Your task to perform on an android device: turn on javascript in the chrome app Image 0: 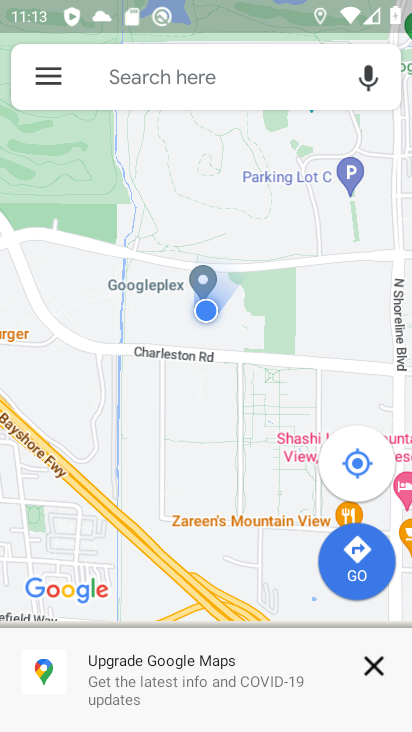
Step 0: press home button
Your task to perform on an android device: turn on javascript in the chrome app Image 1: 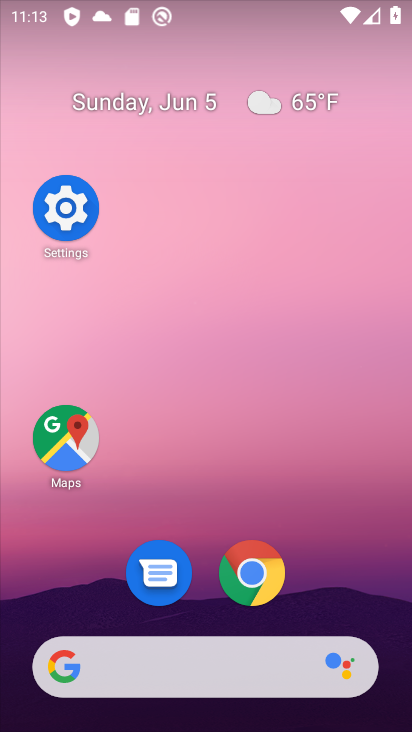
Step 1: click (247, 567)
Your task to perform on an android device: turn on javascript in the chrome app Image 2: 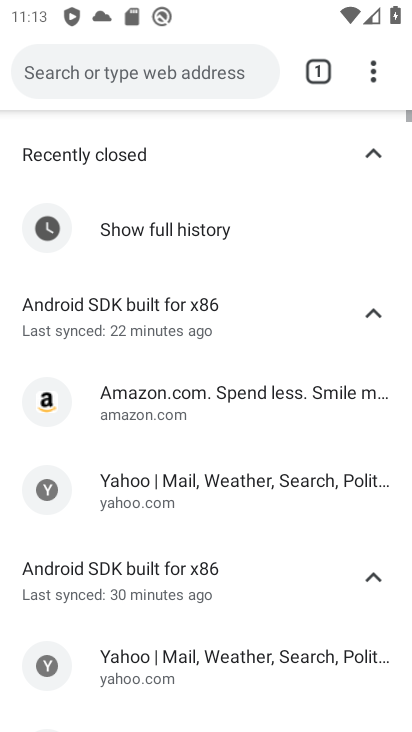
Step 2: click (361, 72)
Your task to perform on an android device: turn on javascript in the chrome app Image 3: 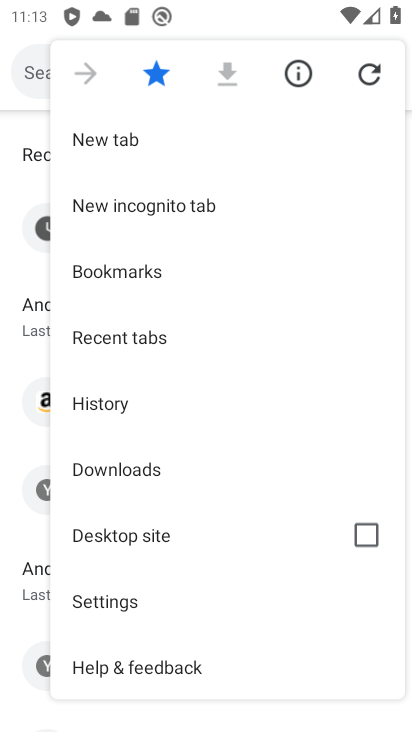
Step 3: drag from (189, 460) to (189, 215)
Your task to perform on an android device: turn on javascript in the chrome app Image 4: 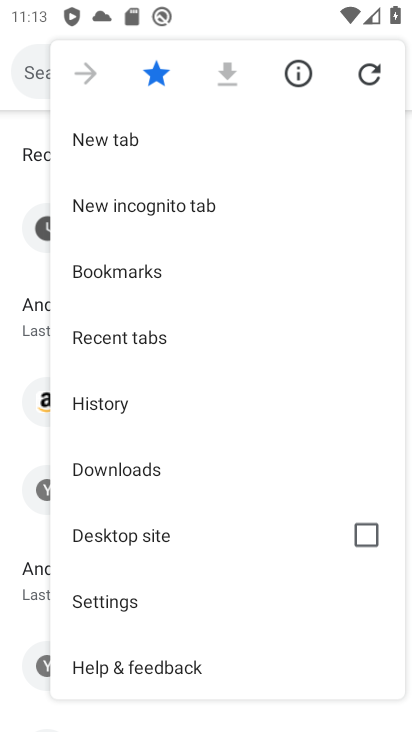
Step 4: click (136, 591)
Your task to perform on an android device: turn on javascript in the chrome app Image 5: 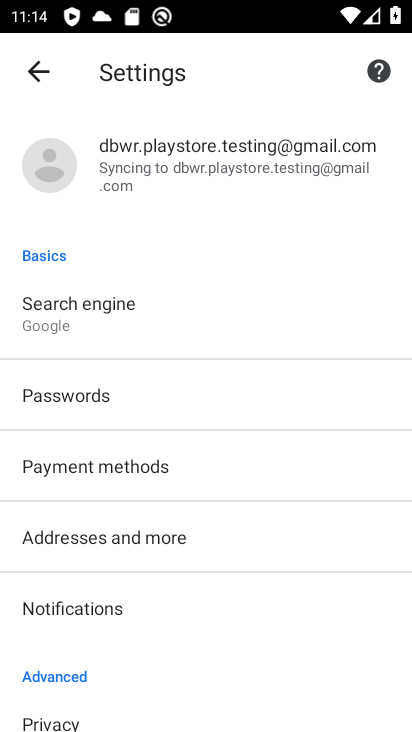
Step 5: drag from (125, 557) to (139, 271)
Your task to perform on an android device: turn on javascript in the chrome app Image 6: 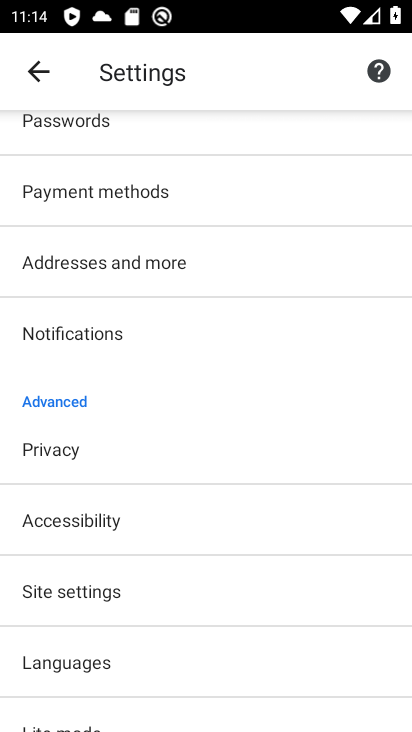
Step 6: click (122, 581)
Your task to perform on an android device: turn on javascript in the chrome app Image 7: 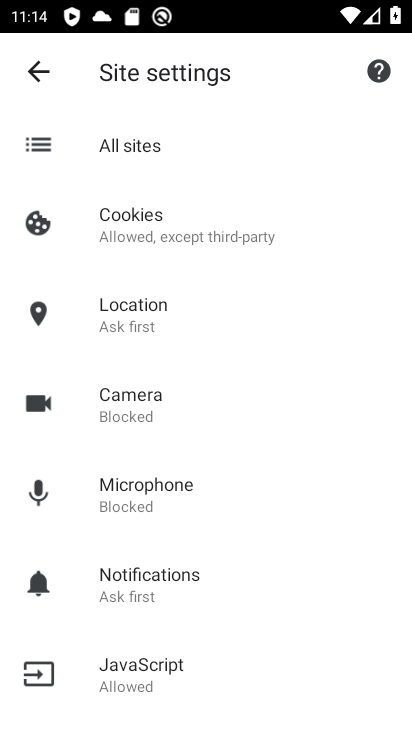
Step 7: click (133, 659)
Your task to perform on an android device: turn on javascript in the chrome app Image 8: 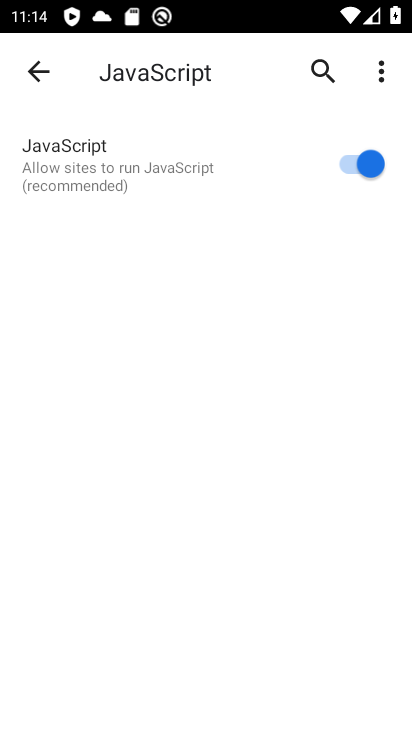
Step 8: task complete